Your task to perform on an android device: When is my next appointment? Image 0: 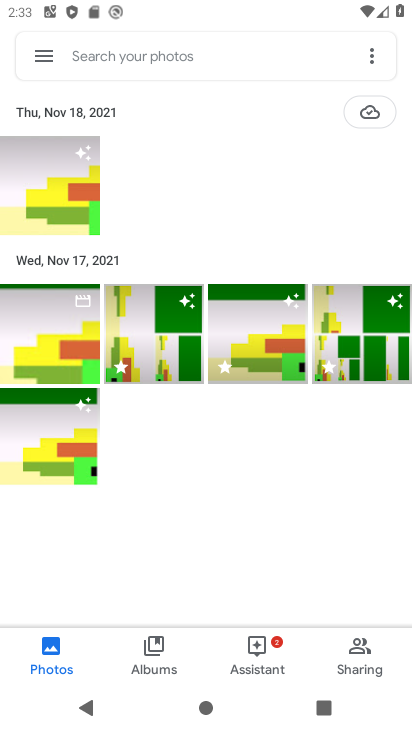
Step 0: press home button
Your task to perform on an android device: When is my next appointment? Image 1: 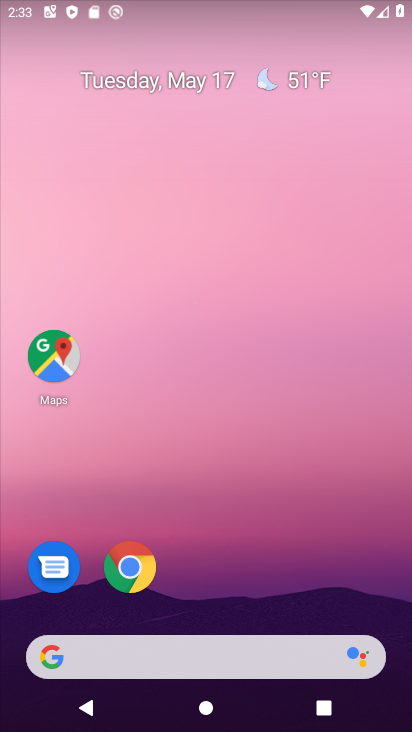
Step 1: drag from (172, 640) to (251, 150)
Your task to perform on an android device: When is my next appointment? Image 2: 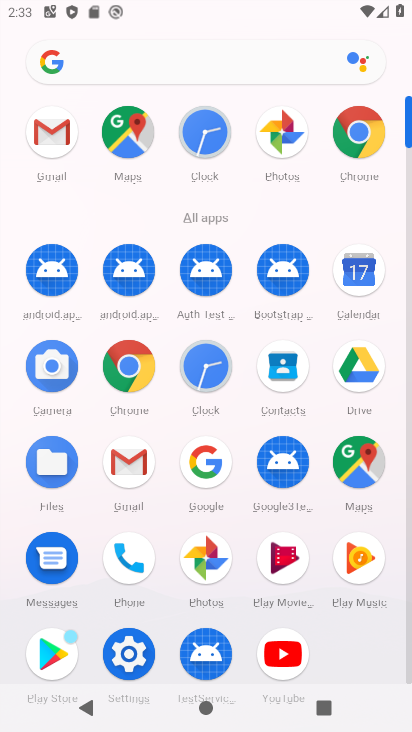
Step 2: click (360, 260)
Your task to perform on an android device: When is my next appointment? Image 3: 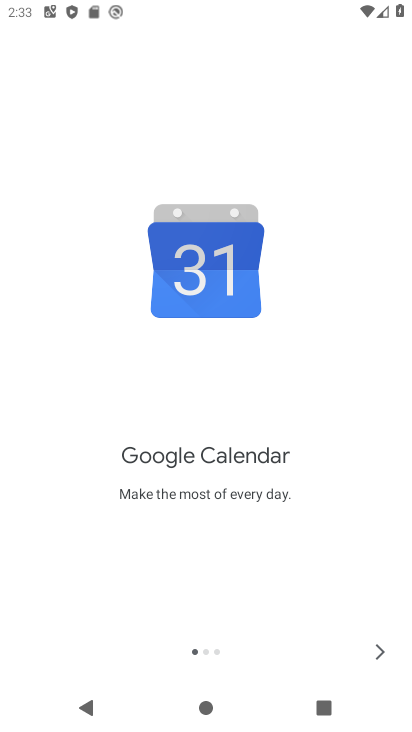
Step 3: click (377, 652)
Your task to perform on an android device: When is my next appointment? Image 4: 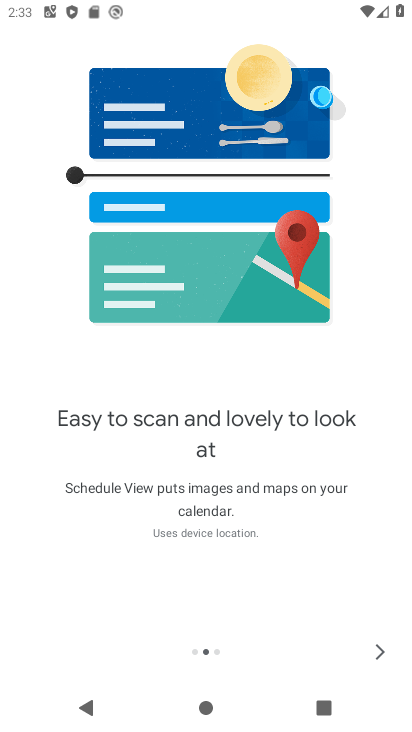
Step 4: click (377, 652)
Your task to perform on an android device: When is my next appointment? Image 5: 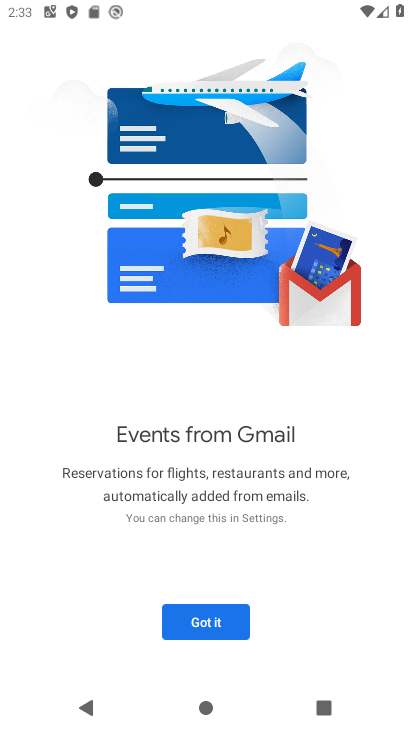
Step 5: click (171, 636)
Your task to perform on an android device: When is my next appointment? Image 6: 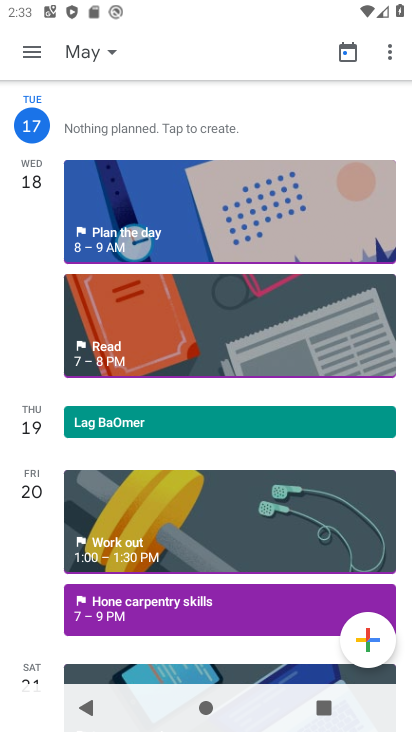
Step 6: click (24, 60)
Your task to perform on an android device: When is my next appointment? Image 7: 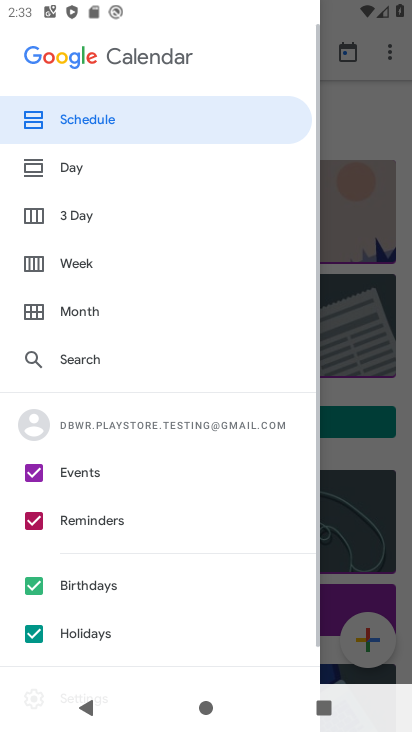
Step 7: click (142, 121)
Your task to perform on an android device: When is my next appointment? Image 8: 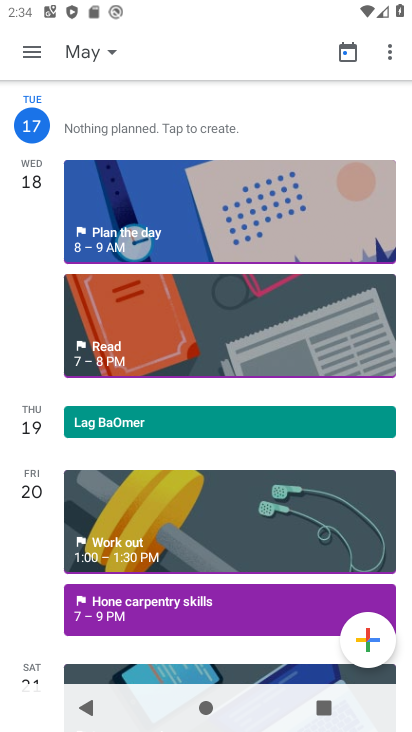
Step 8: task complete